Your task to perform on an android device: turn off sleep mode Image 0: 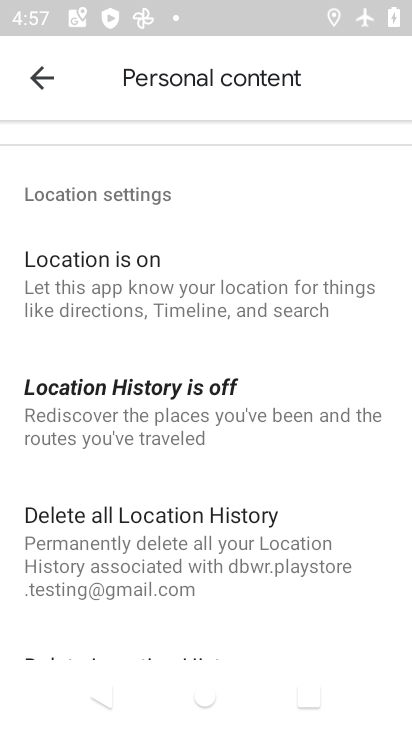
Step 0: press home button
Your task to perform on an android device: turn off sleep mode Image 1: 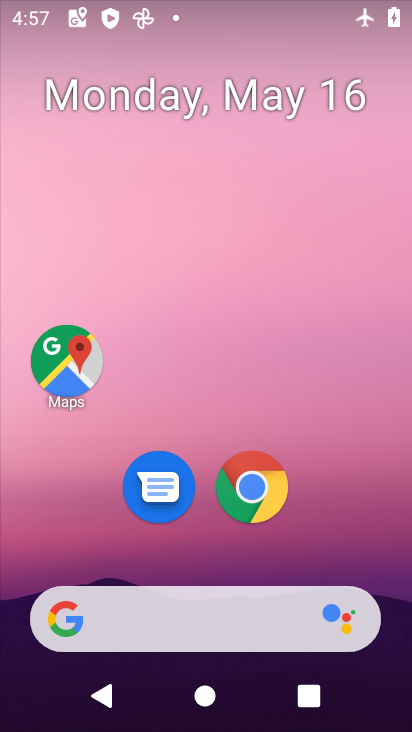
Step 1: drag from (397, 614) to (322, 132)
Your task to perform on an android device: turn off sleep mode Image 2: 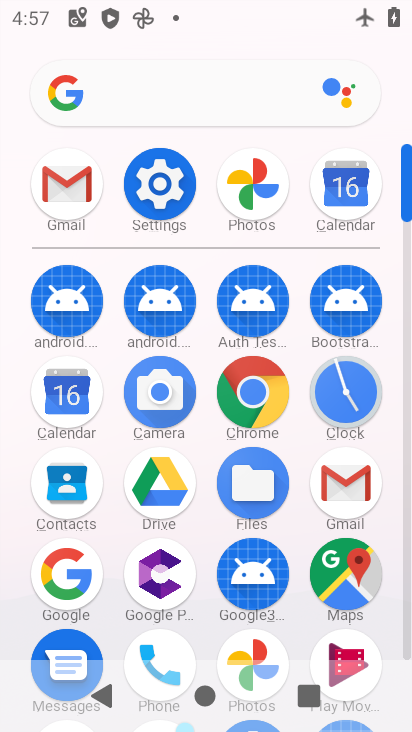
Step 2: click (410, 641)
Your task to perform on an android device: turn off sleep mode Image 3: 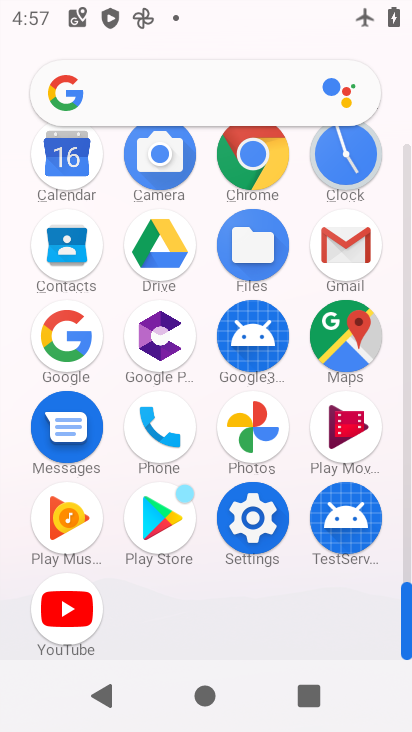
Step 3: click (253, 517)
Your task to perform on an android device: turn off sleep mode Image 4: 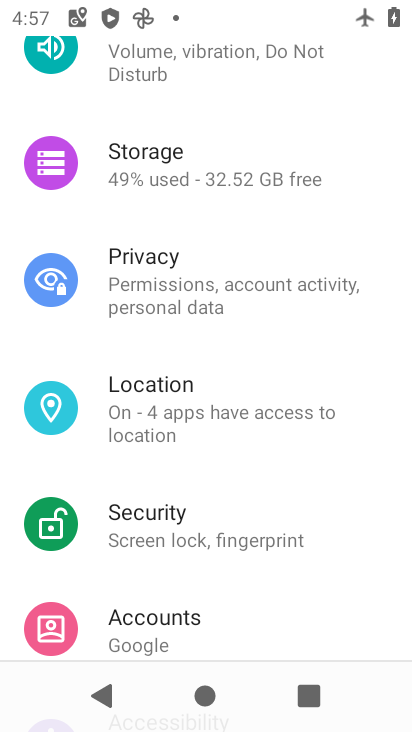
Step 4: drag from (373, 176) to (362, 524)
Your task to perform on an android device: turn off sleep mode Image 5: 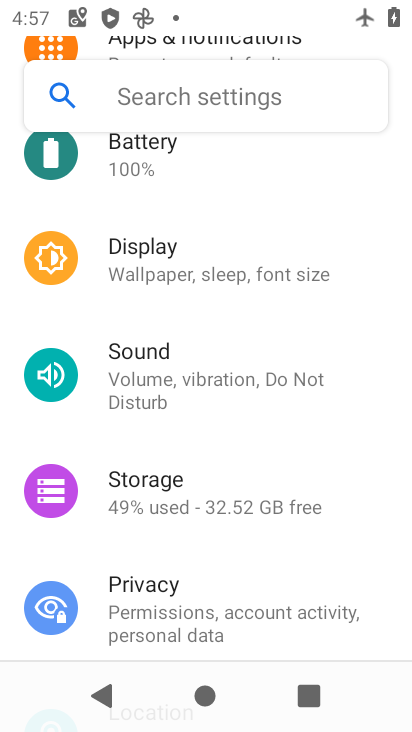
Step 5: click (151, 263)
Your task to perform on an android device: turn off sleep mode Image 6: 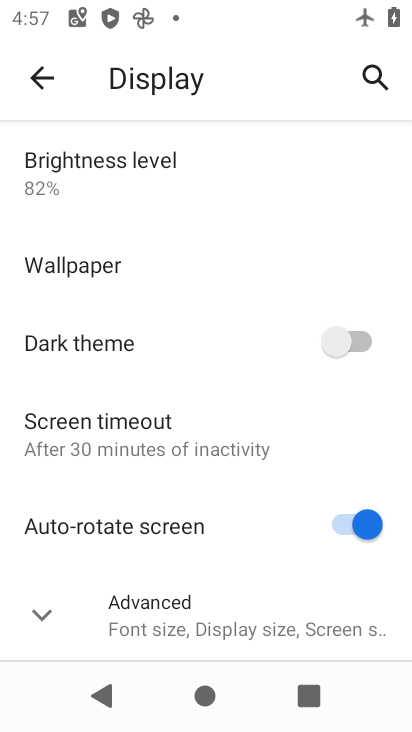
Step 6: click (42, 614)
Your task to perform on an android device: turn off sleep mode Image 7: 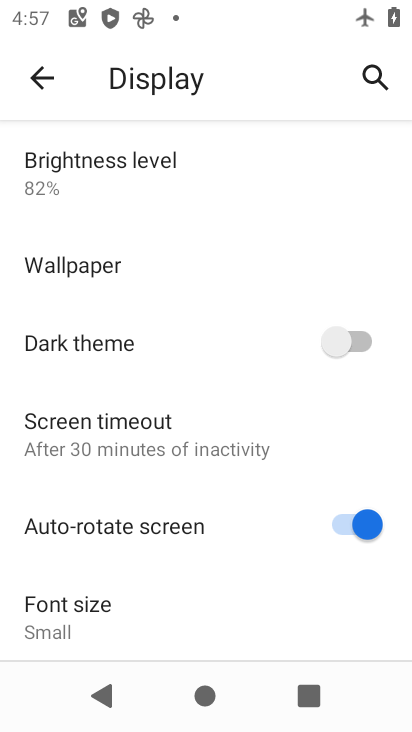
Step 7: task complete